Your task to perform on an android device: empty trash in google photos Image 0: 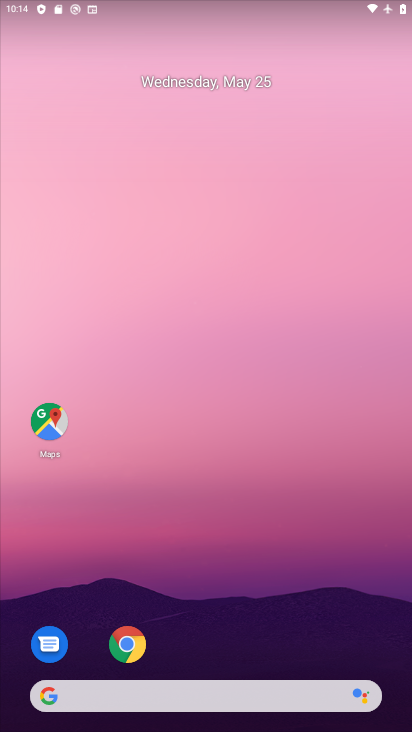
Step 0: drag from (211, 623) to (284, 139)
Your task to perform on an android device: empty trash in google photos Image 1: 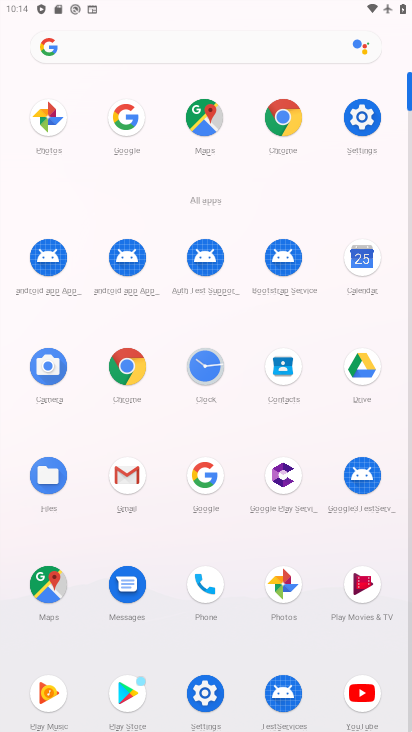
Step 1: click (42, 117)
Your task to perform on an android device: empty trash in google photos Image 2: 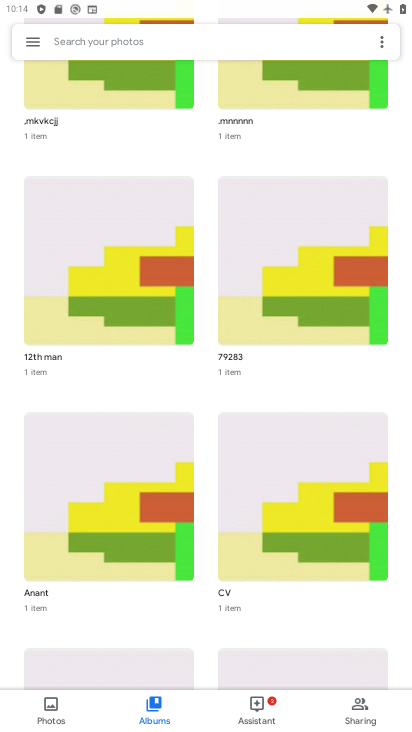
Step 2: drag from (196, 100) to (215, 519)
Your task to perform on an android device: empty trash in google photos Image 3: 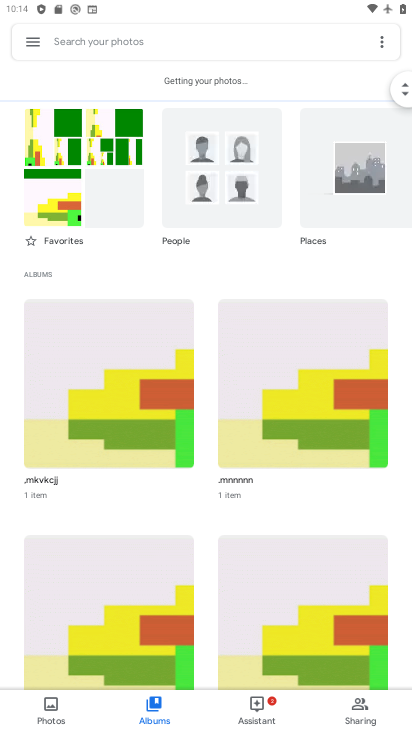
Step 3: click (35, 40)
Your task to perform on an android device: empty trash in google photos Image 4: 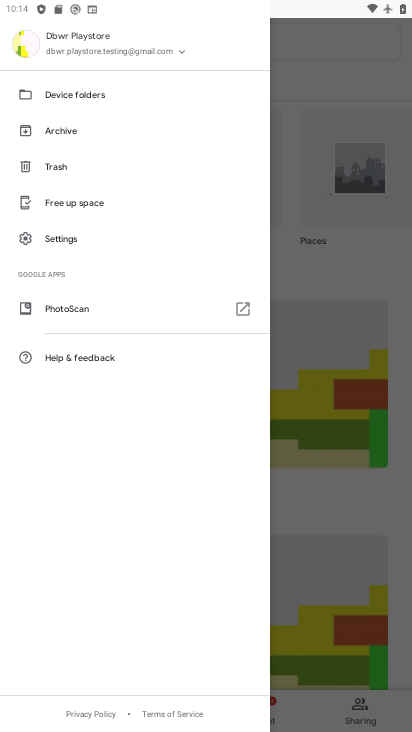
Step 4: click (53, 228)
Your task to perform on an android device: empty trash in google photos Image 5: 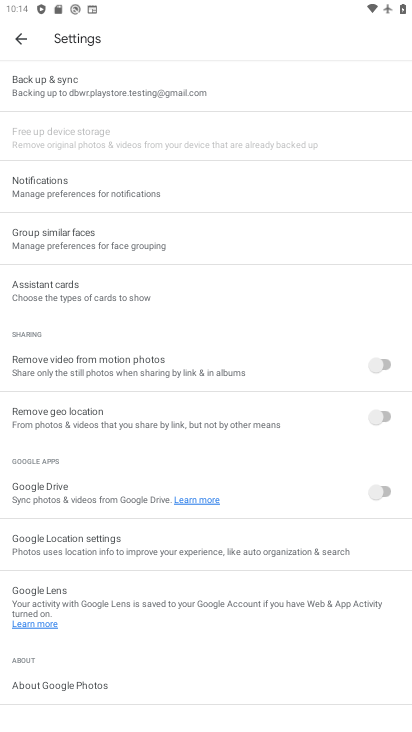
Step 5: press back button
Your task to perform on an android device: empty trash in google photos Image 6: 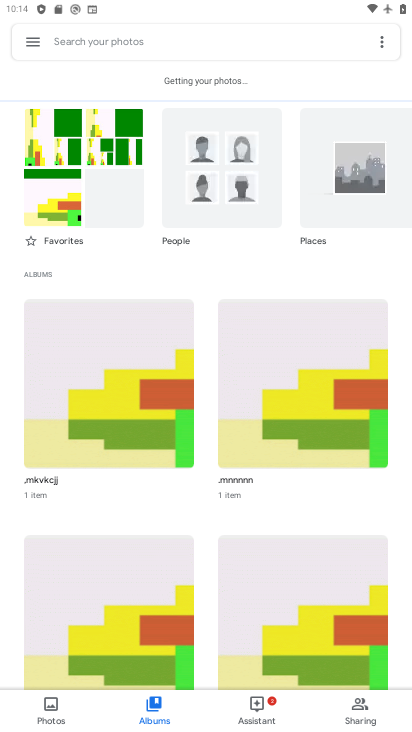
Step 6: click (38, 30)
Your task to perform on an android device: empty trash in google photos Image 7: 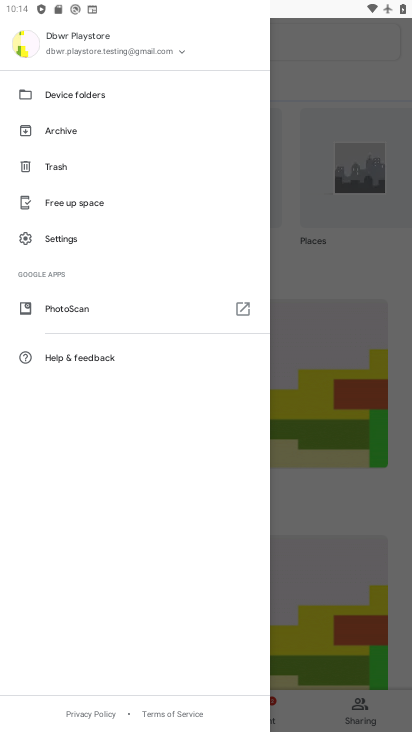
Step 7: click (58, 163)
Your task to perform on an android device: empty trash in google photos Image 8: 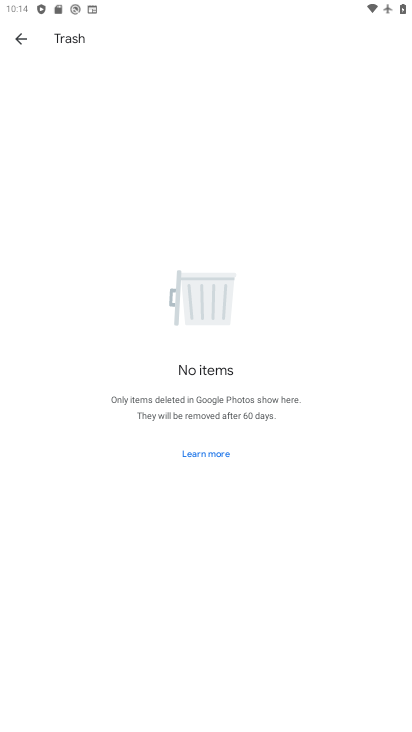
Step 8: task complete